Your task to perform on an android device: move an email to a new category in the gmail app Image 0: 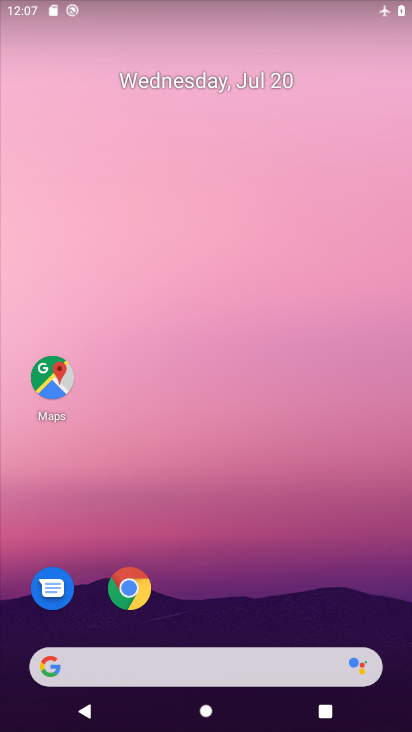
Step 0: drag from (267, 624) to (270, 160)
Your task to perform on an android device: move an email to a new category in the gmail app Image 1: 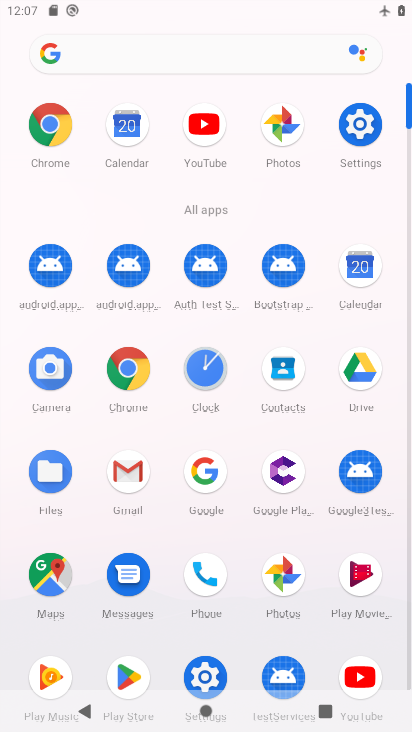
Step 1: click (130, 458)
Your task to perform on an android device: move an email to a new category in the gmail app Image 2: 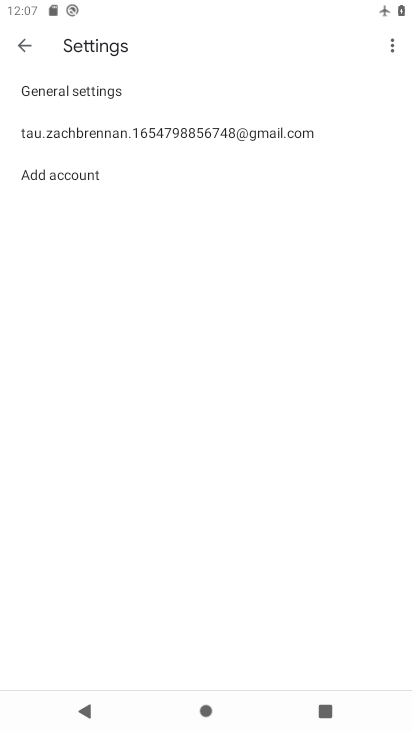
Step 2: click (23, 41)
Your task to perform on an android device: move an email to a new category in the gmail app Image 3: 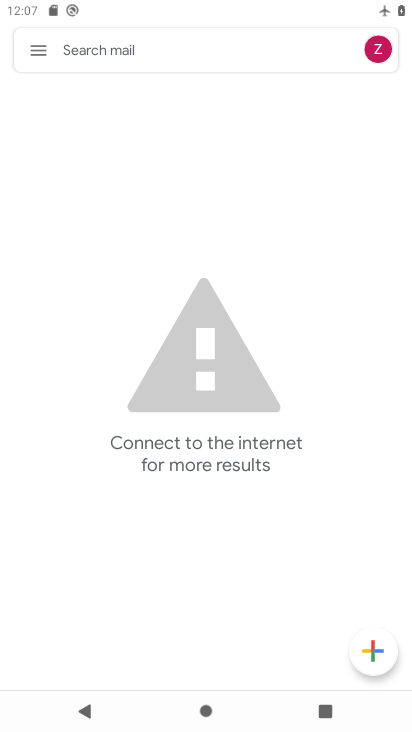
Step 3: click (29, 40)
Your task to perform on an android device: move an email to a new category in the gmail app Image 4: 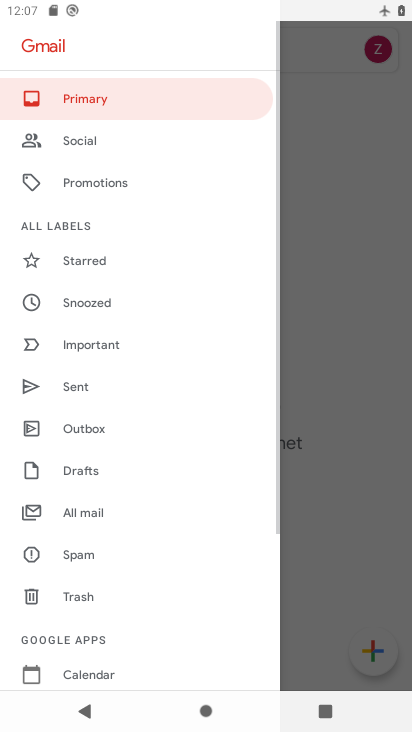
Step 4: click (104, 515)
Your task to perform on an android device: move an email to a new category in the gmail app Image 5: 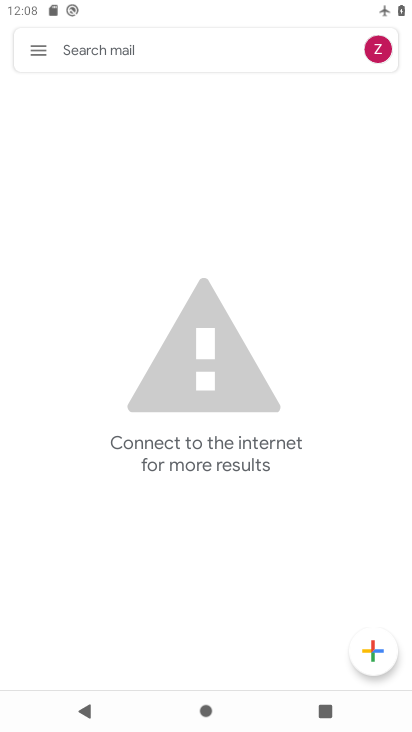
Step 5: task complete